Your task to perform on an android device: open app "Google Duo" Image 0: 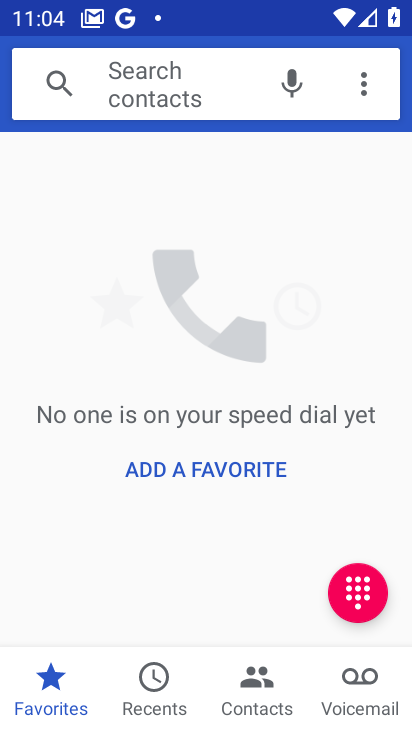
Step 0: press back button
Your task to perform on an android device: open app "Google Duo" Image 1: 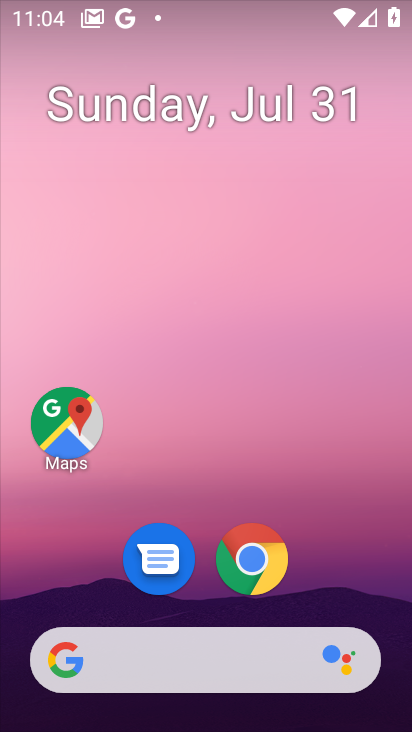
Step 1: drag from (80, 559) to (213, 8)
Your task to perform on an android device: open app "Google Duo" Image 2: 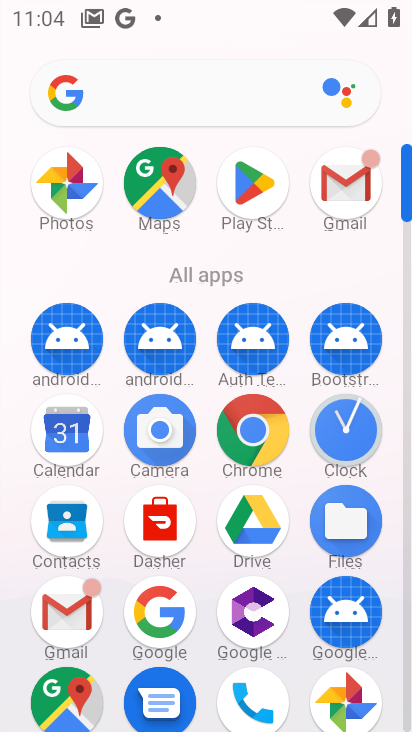
Step 2: click (245, 173)
Your task to perform on an android device: open app "Google Duo" Image 3: 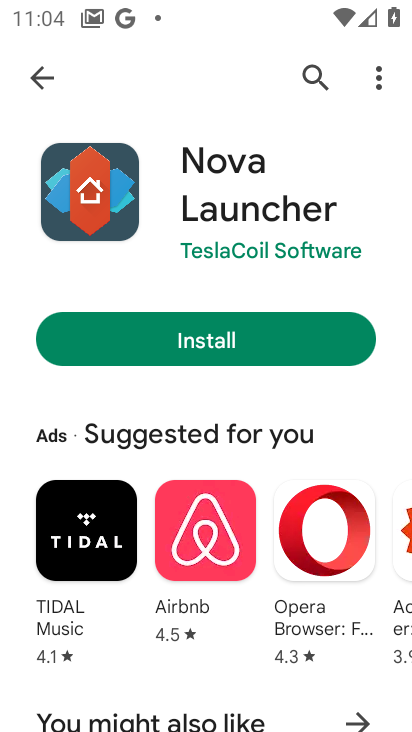
Step 3: click (316, 69)
Your task to perform on an android device: open app "Google Duo" Image 4: 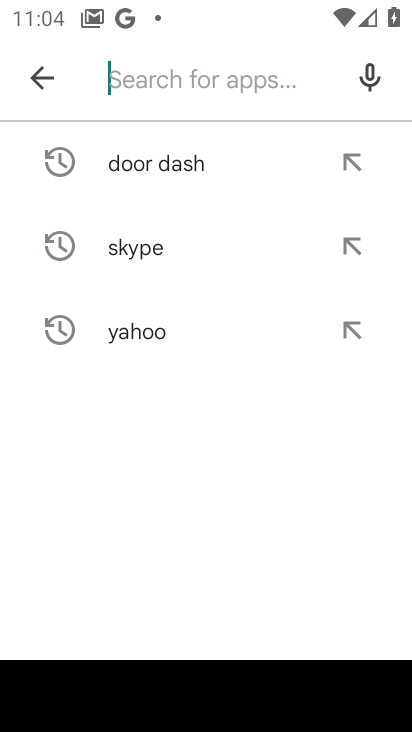
Step 4: click (227, 77)
Your task to perform on an android device: open app "Google Duo" Image 5: 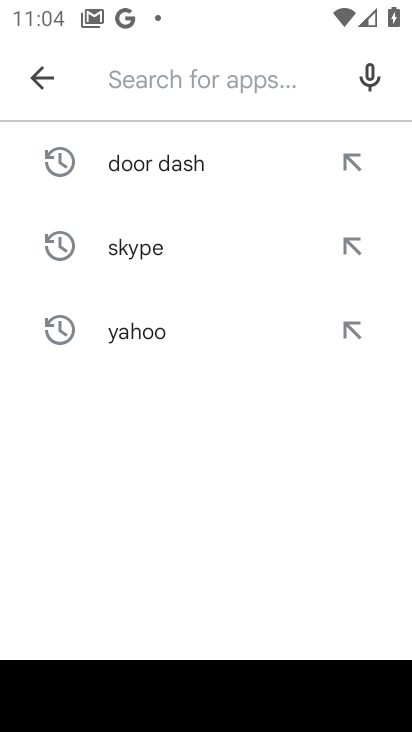
Step 5: type "google duo"
Your task to perform on an android device: open app "Google Duo" Image 6: 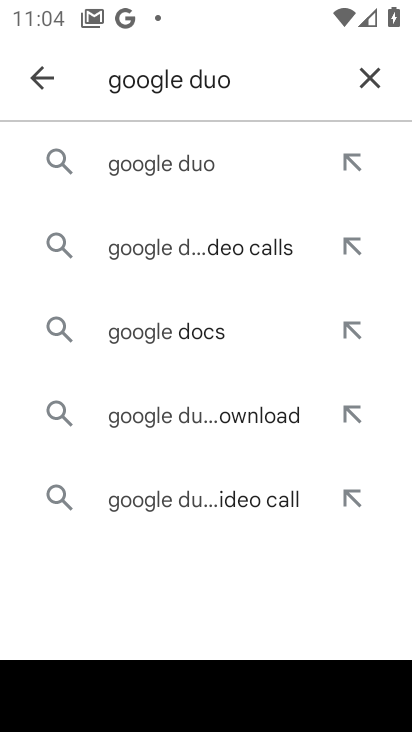
Step 6: click (184, 165)
Your task to perform on an android device: open app "Google Duo" Image 7: 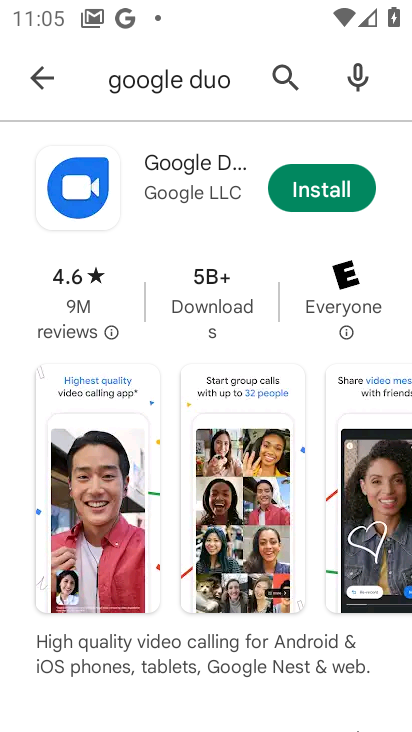
Step 7: task complete